Your task to perform on an android device: Go to settings Image 0: 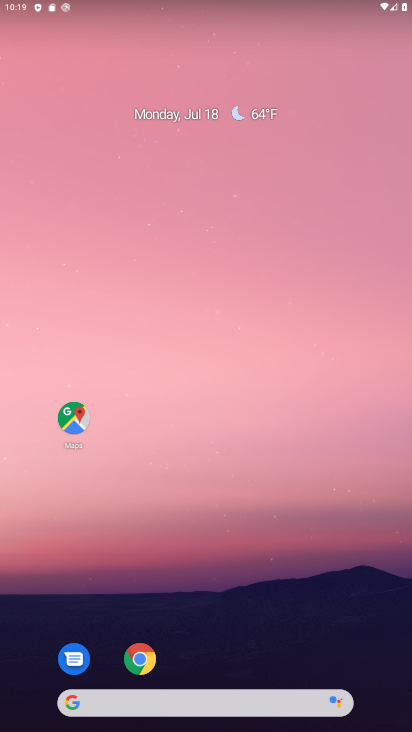
Step 0: drag from (208, 654) to (226, 119)
Your task to perform on an android device: Go to settings Image 1: 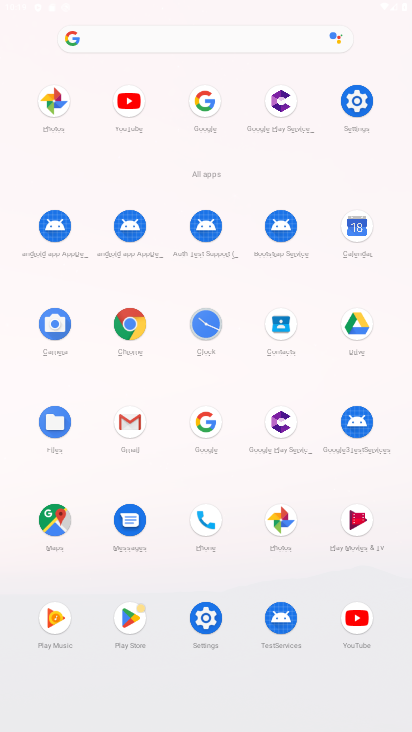
Step 1: click (358, 93)
Your task to perform on an android device: Go to settings Image 2: 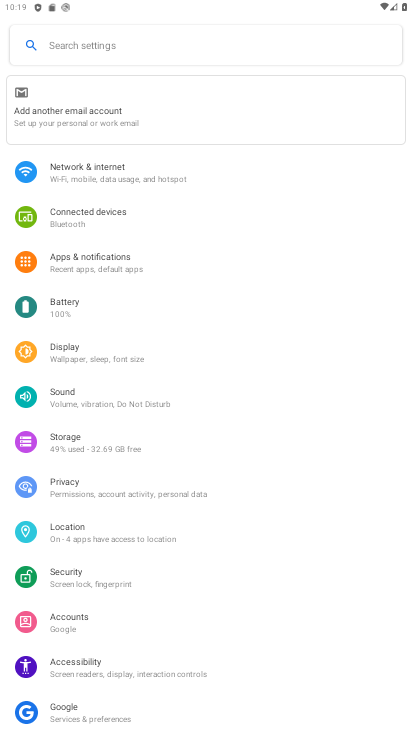
Step 2: task complete